Your task to perform on an android device: set the stopwatch Image 0: 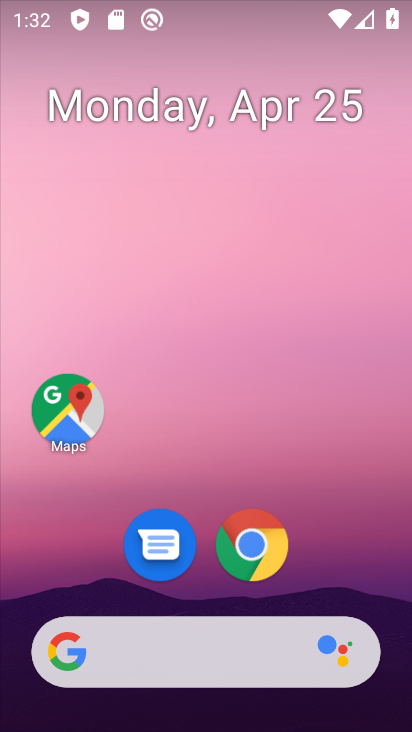
Step 0: drag from (328, 564) to (281, 127)
Your task to perform on an android device: set the stopwatch Image 1: 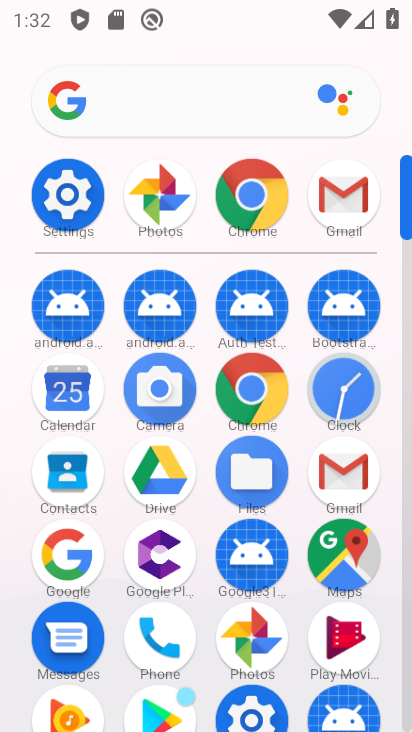
Step 1: click (353, 392)
Your task to perform on an android device: set the stopwatch Image 2: 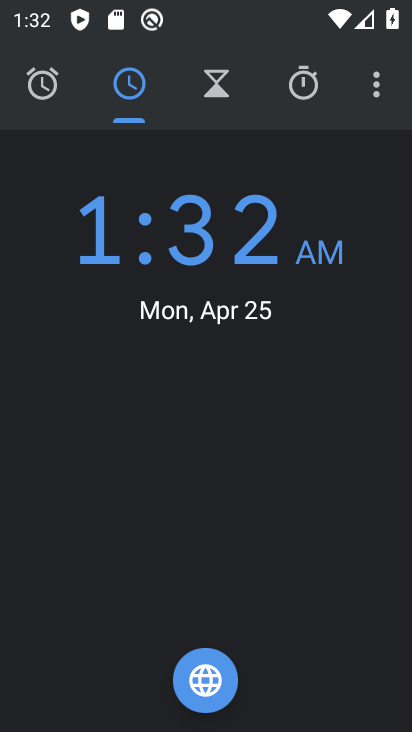
Step 2: click (305, 90)
Your task to perform on an android device: set the stopwatch Image 3: 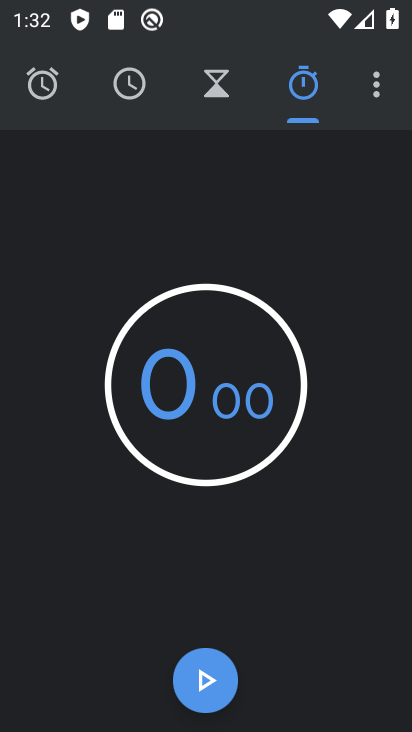
Step 3: click (211, 680)
Your task to perform on an android device: set the stopwatch Image 4: 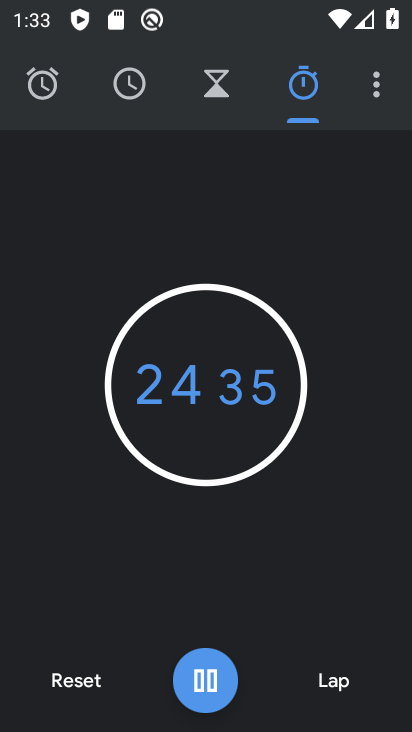
Step 4: task complete